Your task to perform on an android device: see sites visited before in the chrome app Image 0: 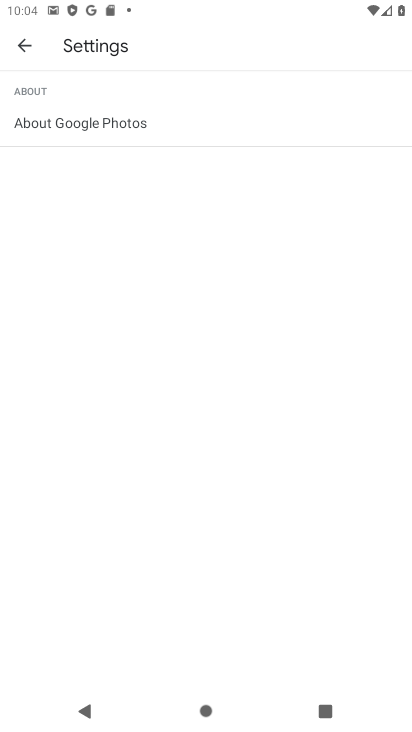
Step 0: press home button
Your task to perform on an android device: see sites visited before in the chrome app Image 1: 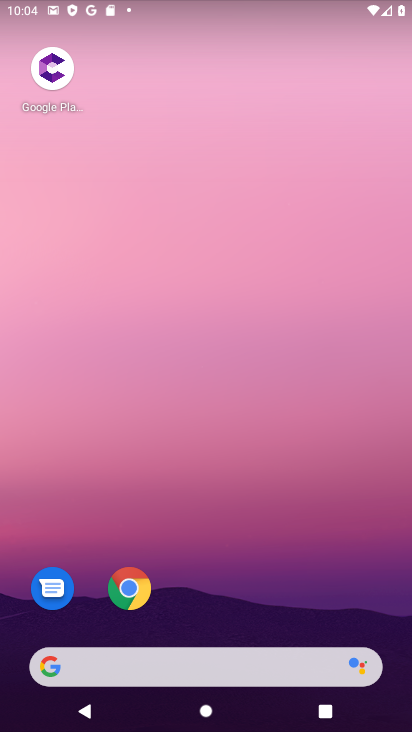
Step 1: click (142, 603)
Your task to perform on an android device: see sites visited before in the chrome app Image 2: 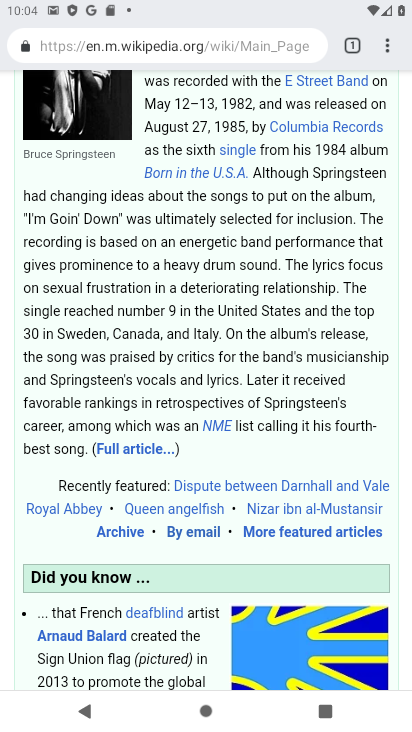
Step 2: click (354, 46)
Your task to perform on an android device: see sites visited before in the chrome app Image 3: 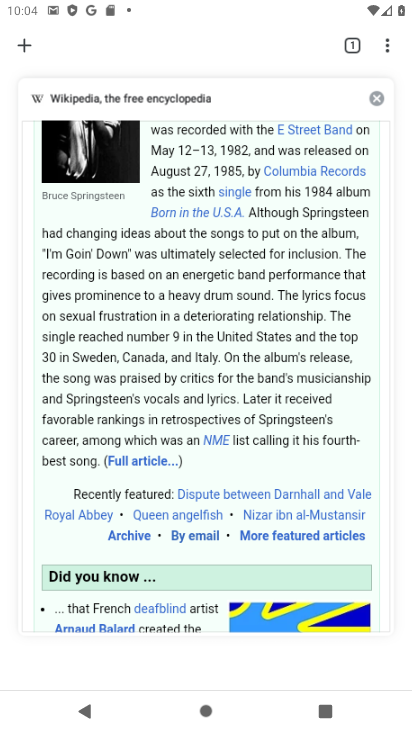
Step 3: task complete